Your task to perform on an android device: Go to wifi settings Image 0: 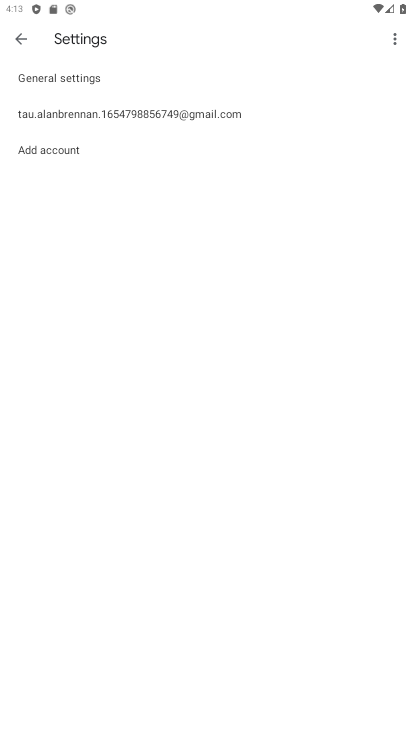
Step 0: press home button
Your task to perform on an android device: Go to wifi settings Image 1: 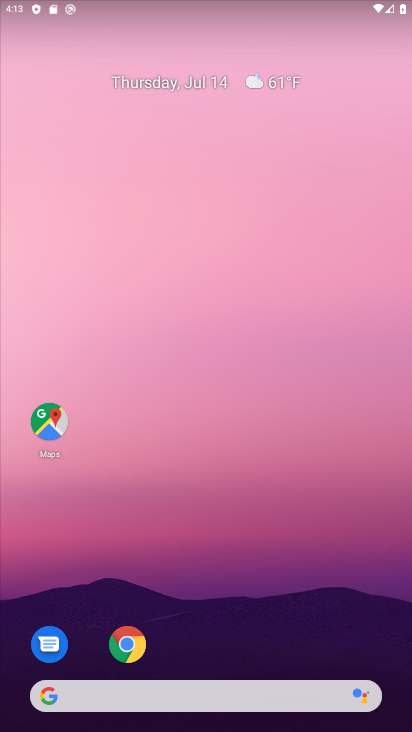
Step 1: drag from (383, 8) to (334, 41)
Your task to perform on an android device: Go to wifi settings Image 2: 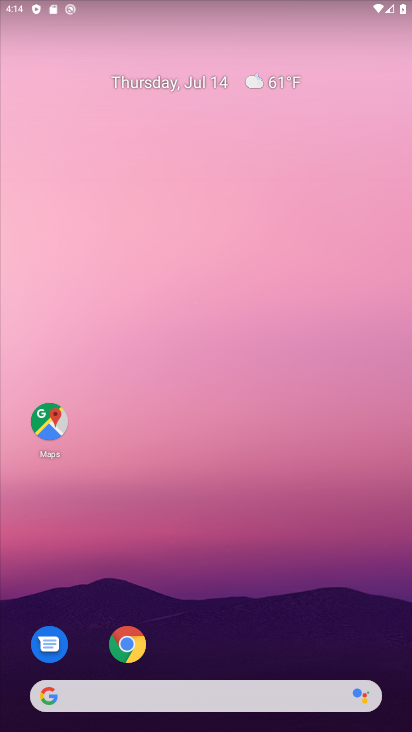
Step 2: drag from (367, 12) to (345, 278)
Your task to perform on an android device: Go to wifi settings Image 3: 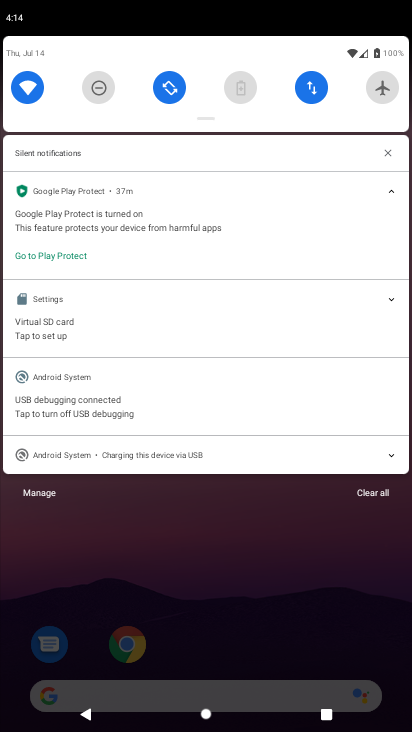
Step 3: click (14, 93)
Your task to perform on an android device: Go to wifi settings Image 4: 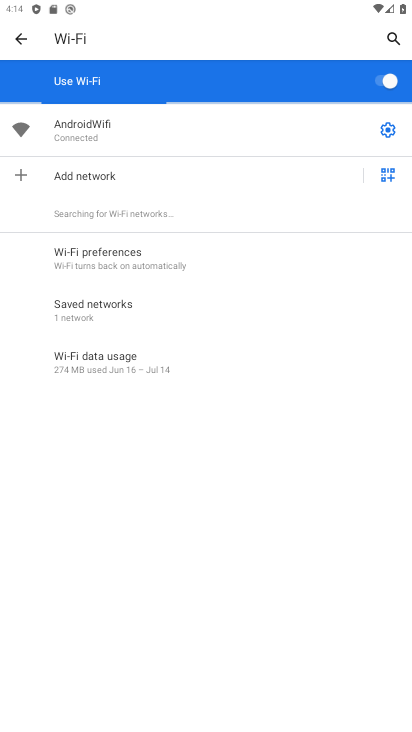
Step 4: task complete